Your task to perform on an android device: turn off notifications in google photos Image 0: 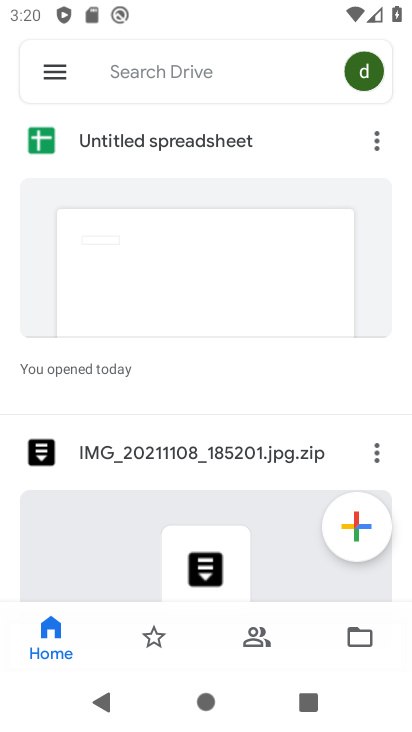
Step 0: press home button
Your task to perform on an android device: turn off notifications in google photos Image 1: 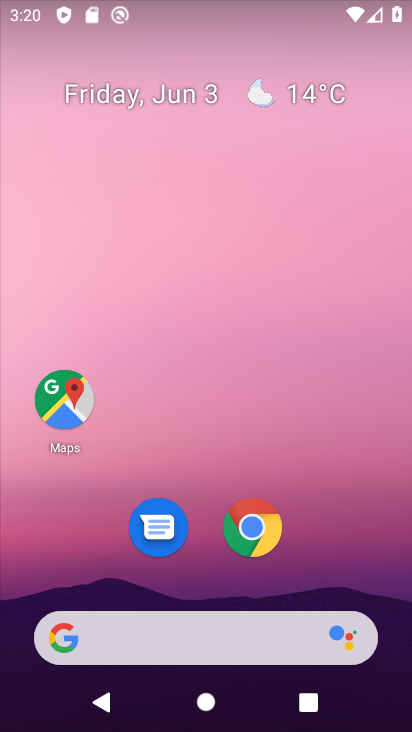
Step 1: drag from (340, 535) to (221, 75)
Your task to perform on an android device: turn off notifications in google photos Image 2: 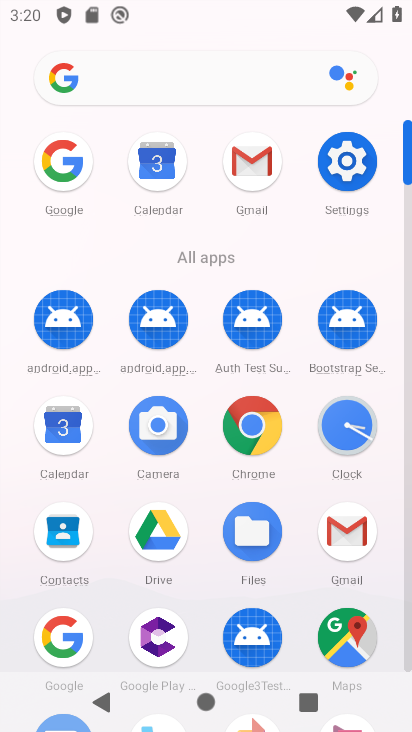
Step 2: drag from (316, 269) to (305, 94)
Your task to perform on an android device: turn off notifications in google photos Image 3: 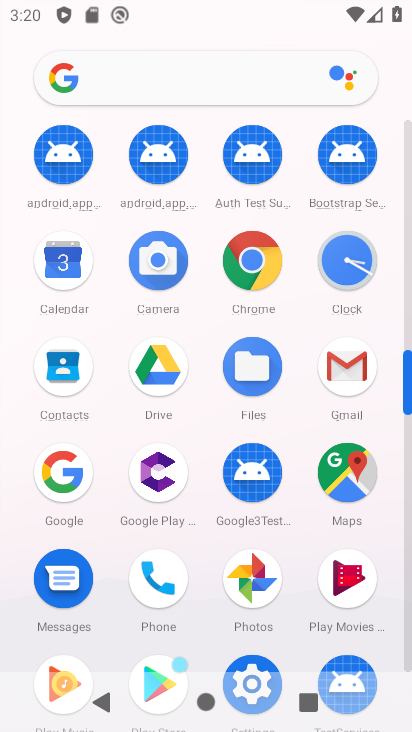
Step 3: click (252, 576)
Your task to perform on an android device: turn off notifications in google photos Image 4: 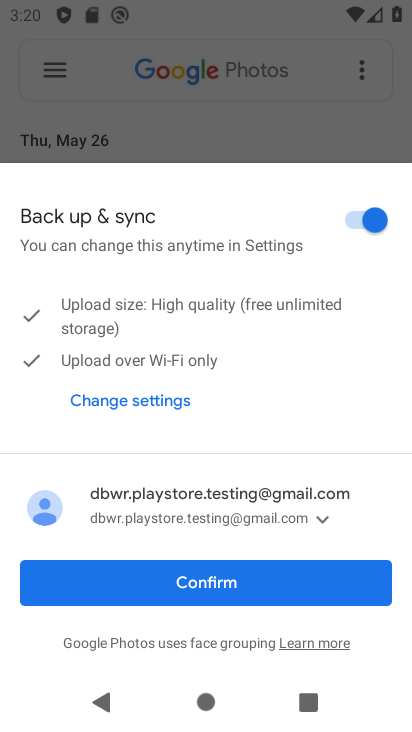
Step 4: click (227, 586)
Your task to perform on an android device: turn off notifications in google photos Image 5: 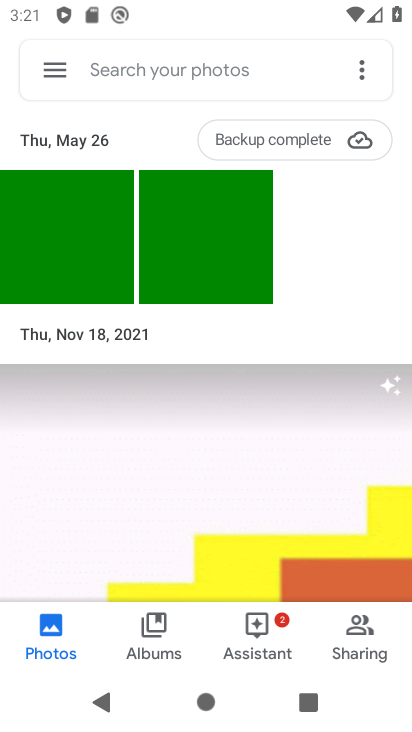
Step 5: click (55, 68)
Your task to perform on an android device: turn off notifications in google photos Image 6: 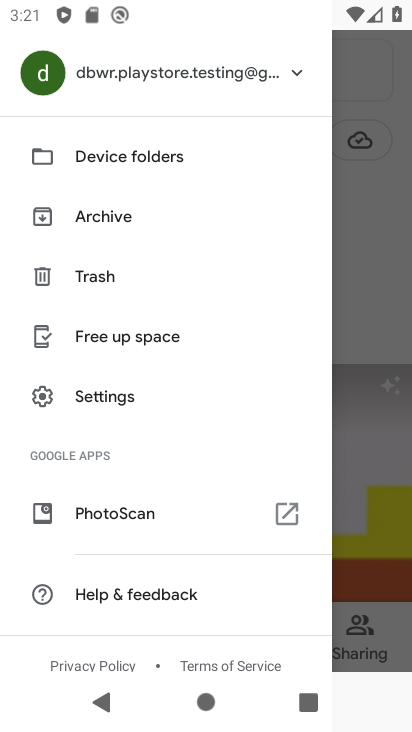
Step 6: click (106, 390)
Your task to perform on an android device: turn off notifications in google photos Image 7: 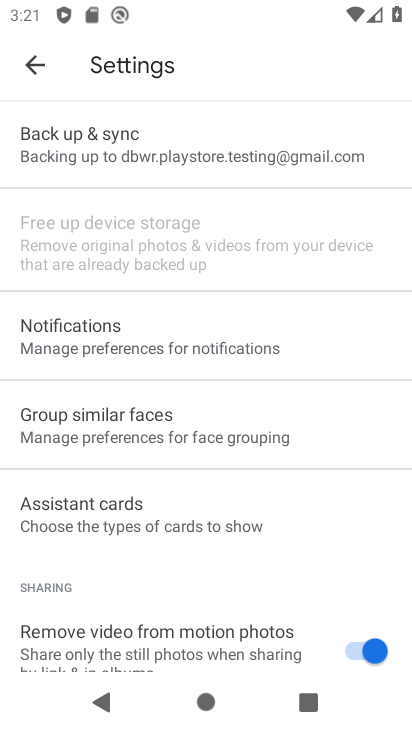
Step 7: click (87, 337)
Your task to perform on an android device: turn off notifications in google photos Image 8: 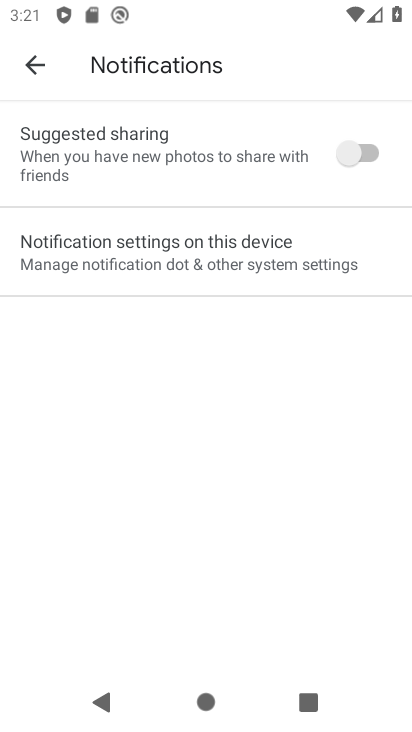
Step 8: click (100, 265)
Your task to perform on an android device: turn off notifications in google photos Image 9: 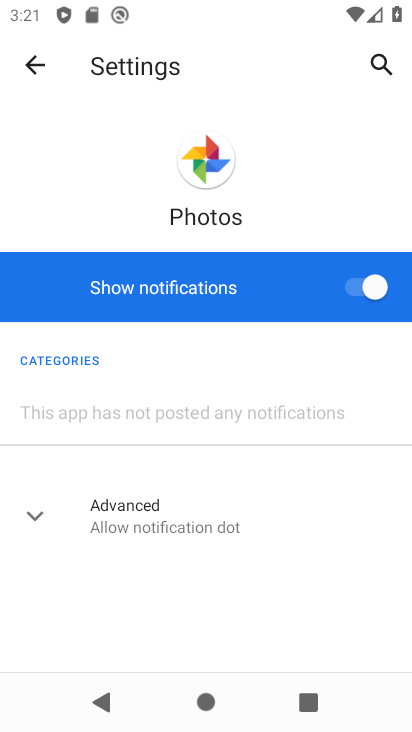
Step 9: click (361, 289)
Your task to perform on an android device: turn off notifications in google photos Image 10: 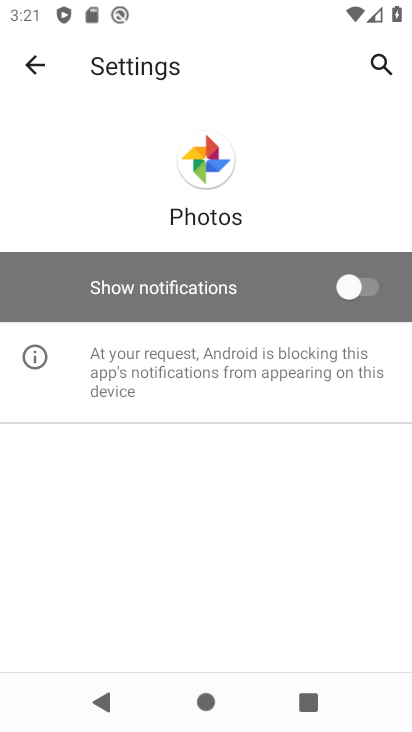
Step 10: task complete